Your task to perform on an android device: choose inbox layout in the gmail app Image 0: 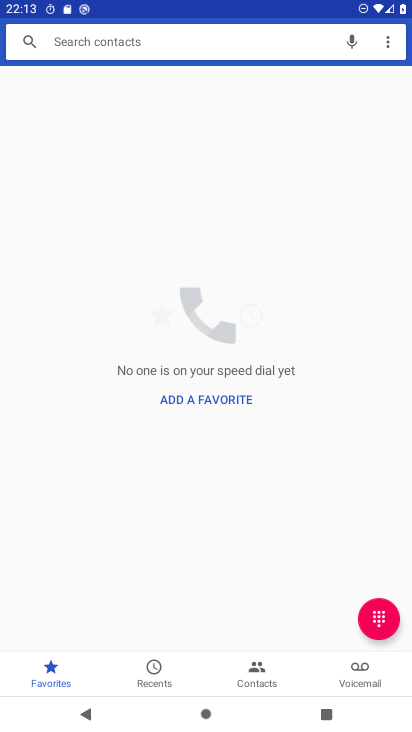
Step 0: press home button
Your task to perform on an android device: choose inbox layout in the gmail app Image 1: 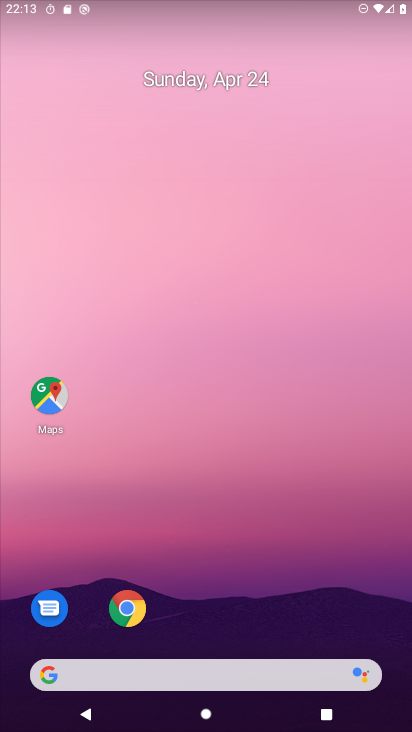
Step 1: drag from (263, 487) to (287, 39)
Your task to perform on an android device: choose inbox layout in the gmail app Image 2: 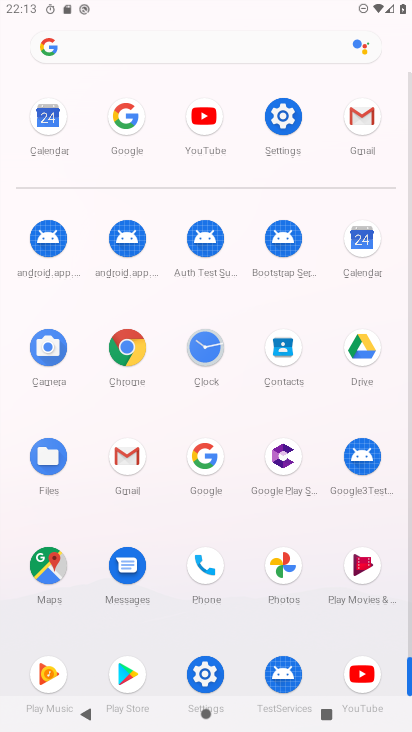
Step 2: click (364, 119)
Your task to perform on an android device: choose inbox layout in the gmail app Image 3: 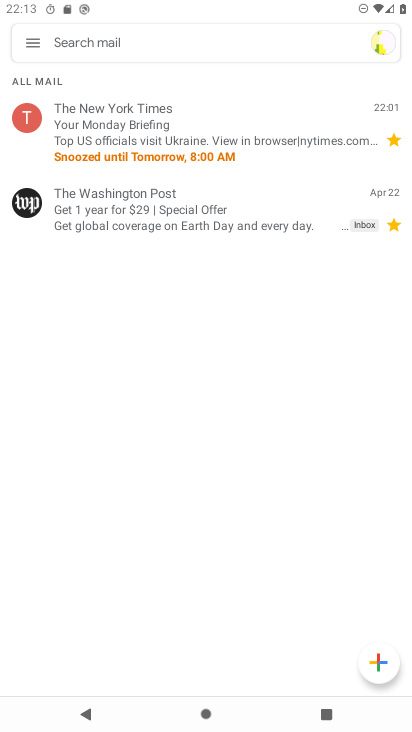
Step 3: click (30, 42)
Your task to perform on an android device: choose inbox layout in the gmail app Image 4: 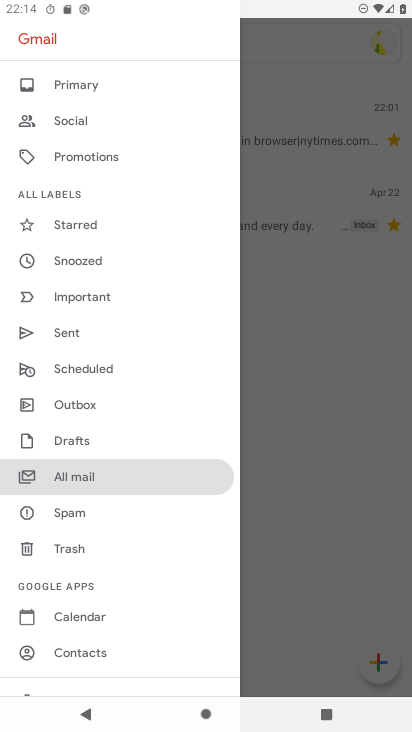
Step 4: drag from (101, 548) to (122, 392)
Your task to perform on an android device: choose inbox layout in the gmail app Image 5: 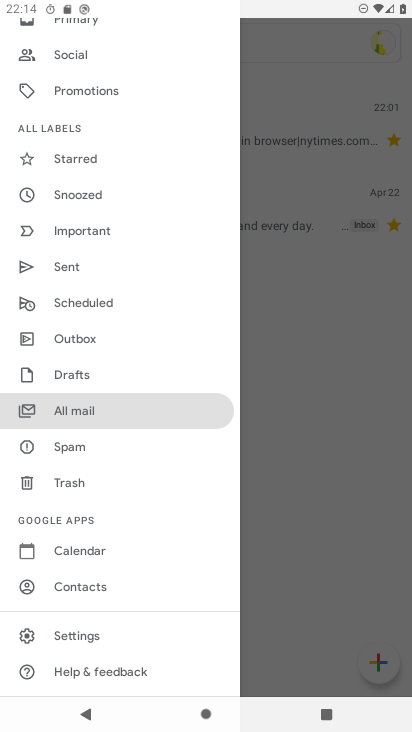
Step 5: click (104, 631)
Your task to perform on an android device: choose inbox layout in the gmail app Image 6: 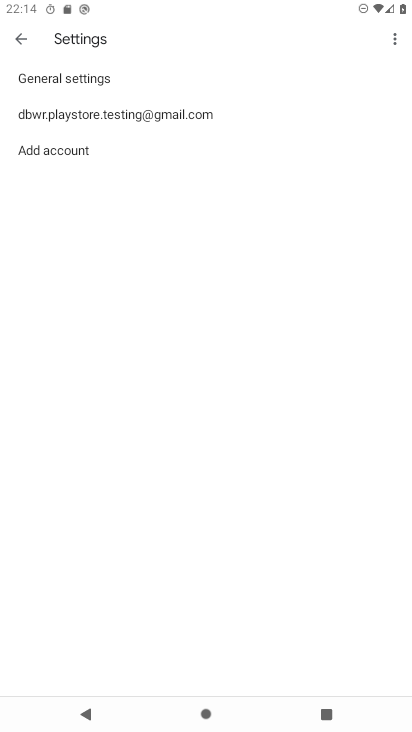
Step 6: click (160, 99)
Your task to perform on an android device: choose inbox layout in the gmail app Image 7: 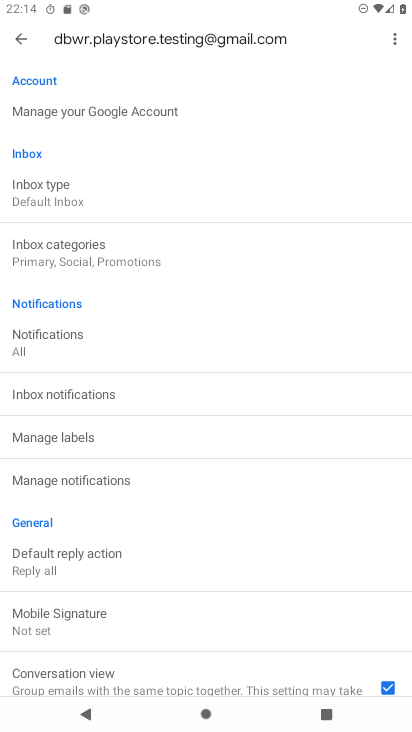
Step 7: click (75, 193)
Your task to perform on an android device: choose inbox layout in the gmail app Image 8: 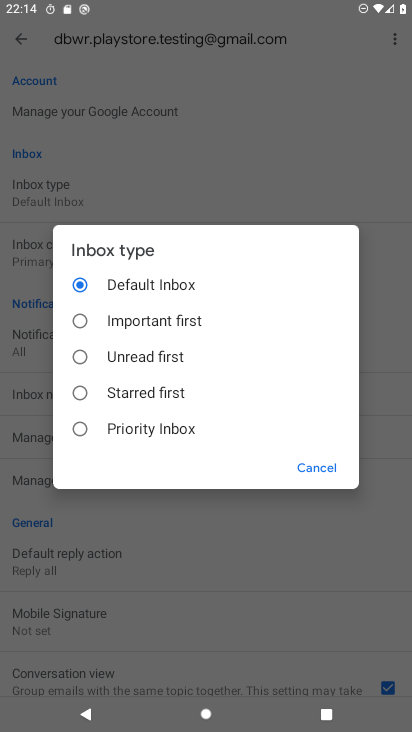
Step 8: click (75, 310)
Your task to perform on an android device: choose inbox layout in the gmail app Image 9: 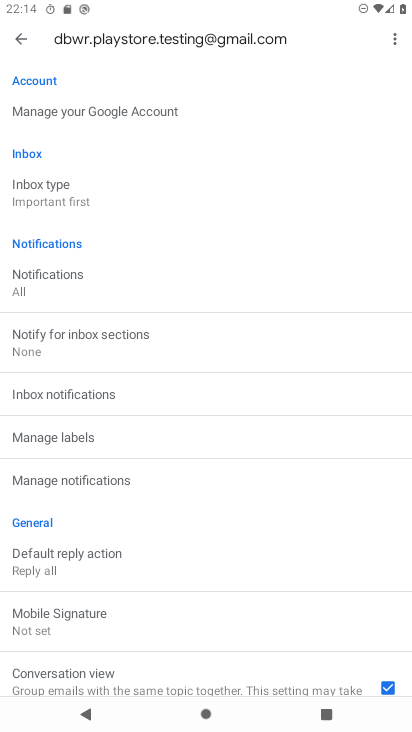
Step 9: task complete